Your task to perform on an android device: empty trash in google photos Image 0: 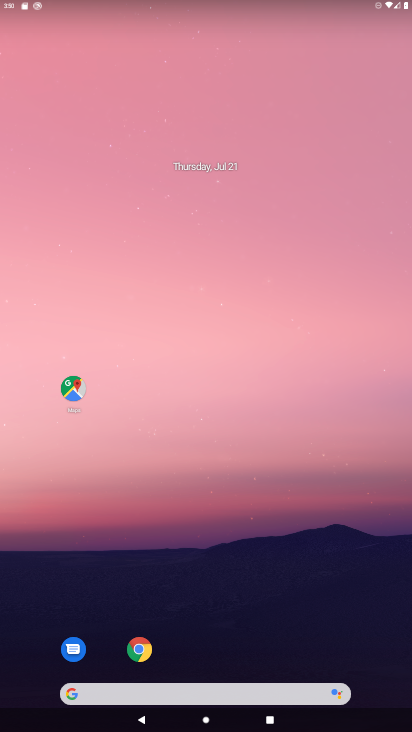
Step 0: drag from (213, 652) to (207, 242)
Your task to perform on an android device: empty trash in google photos Image 1: 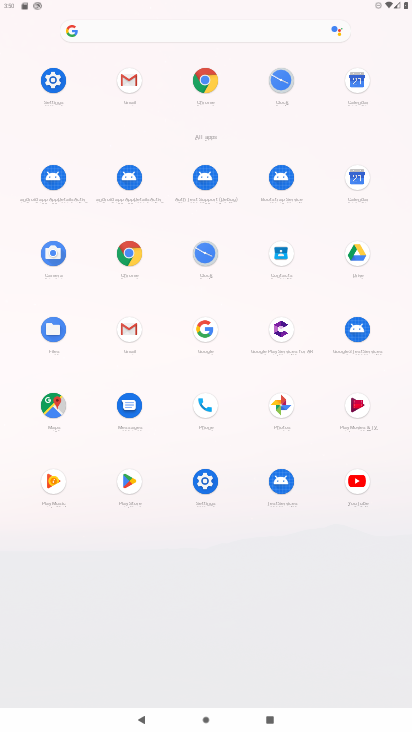
Step 1: click (284, 413)
Your task to perform on an android device: empty trash in google photos Image 2: 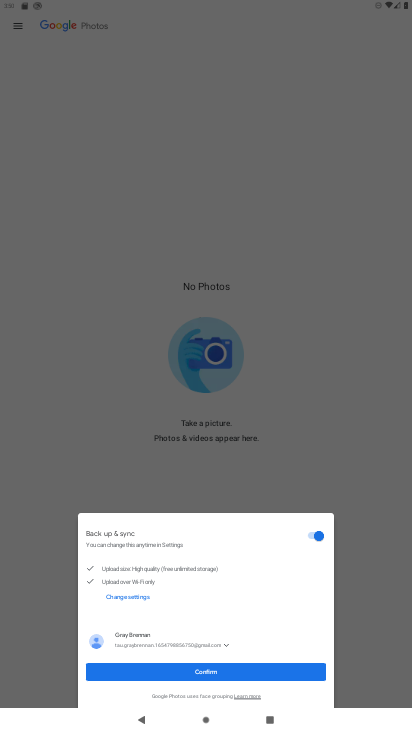
Step 2: click (182, 669)
Your task to perform on an android device: empty trash in google photos Image 3: 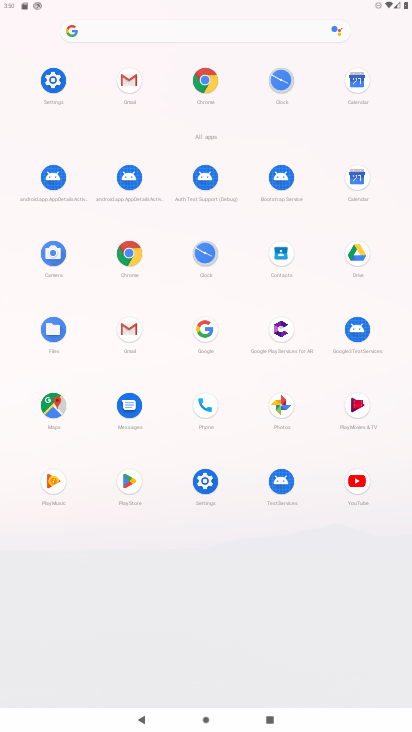
Step 3: click (278, 407)
Your task to perform on an android device: empty trash in google photos Image 4: 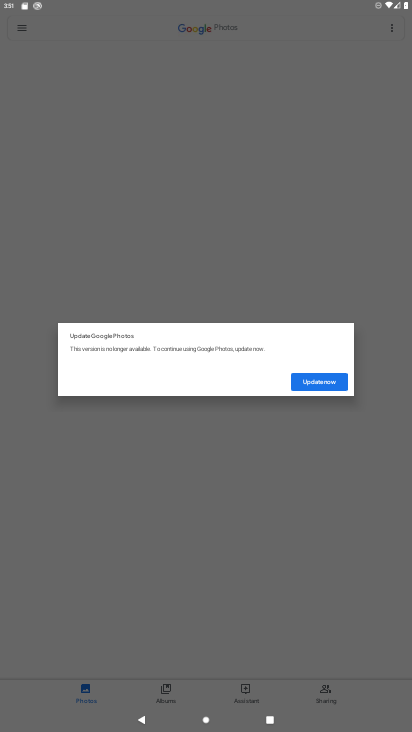
Step 4: click (314, 383)
Your task to perform on an android device: empty trash in google photos Image 5: 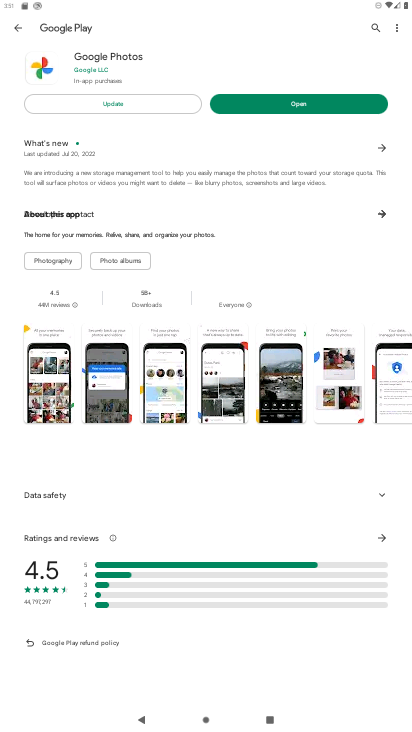
Step 5: click (183, 101)
Your task to perform on an android device: empty trash in google photos Image 6: 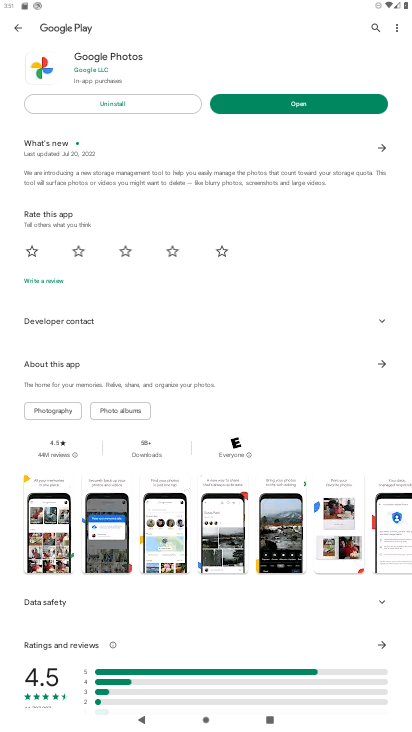
Step 6: click (309, 102)
Your task to perform on an android device: empty trash in google photos Image 7: 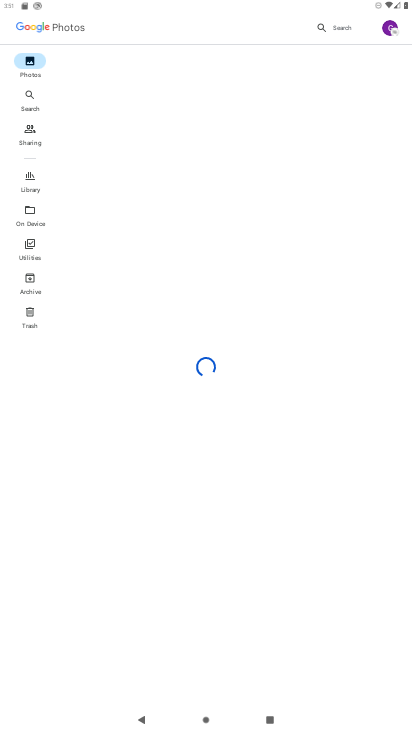
Step 7: click (30, 324)
Your task to perform on an android device: empty trash in google photos Image 8: 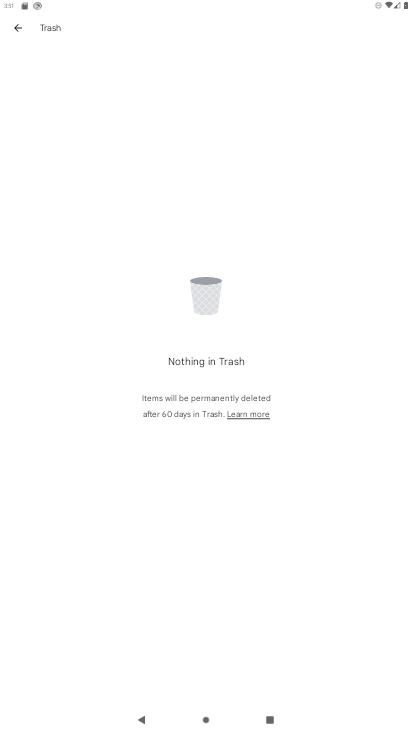
Step 8: task complete